Your task to perform on an android device: change the upload size in google photos Image 0: 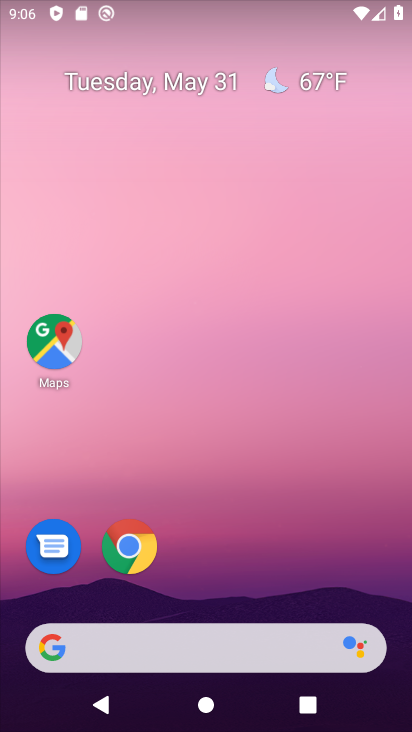
Step 0: drag from (213, 604) to (263, 101)
Your task to perform on an android device: change the upload size in google photos Image 1: 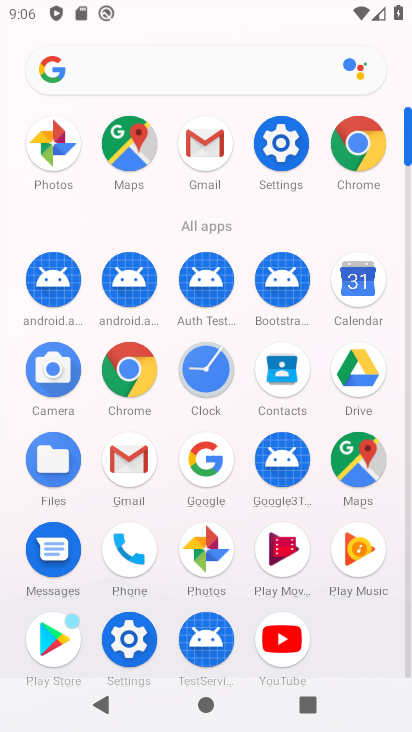
Step 1: click (204, 563)
Your task to perform on an android device: change the upload size in google photos Image 2: 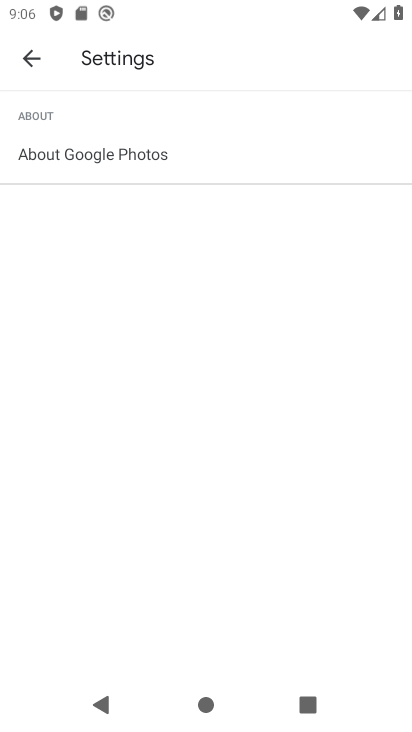
Step 2: click (23, 47)
Your task to perform on an android device: change the upload size in google photos Image 3: 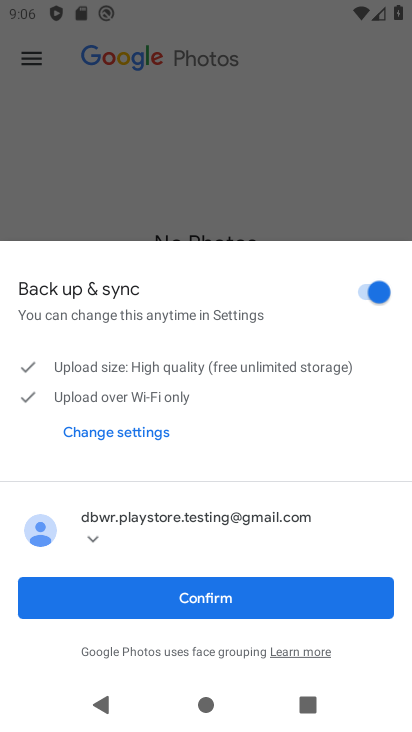
Step 3: click (190, 597)
Your task to perform on an android device: change the upload size in google photos Image 4: 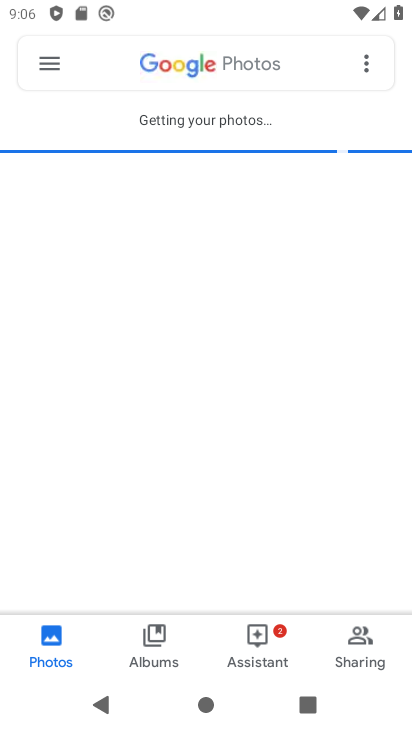
Step 4: click (44, 64)
Your task to perform on an android device: change the upload size in google photos Image 5: 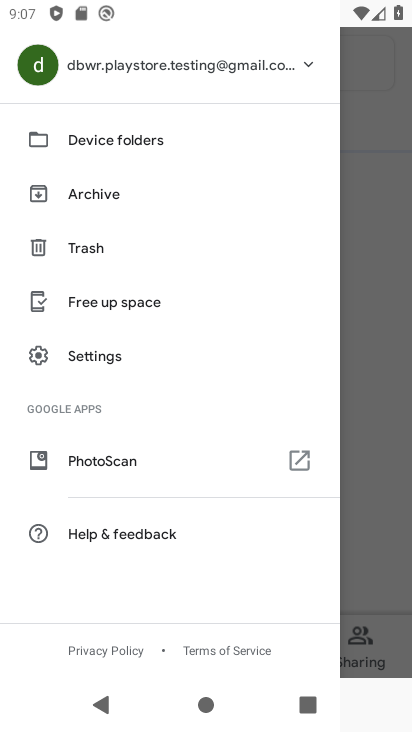
Step 5: click (112, 357)
Your task to perform on an android device: change the upload size in google photos Image 6: 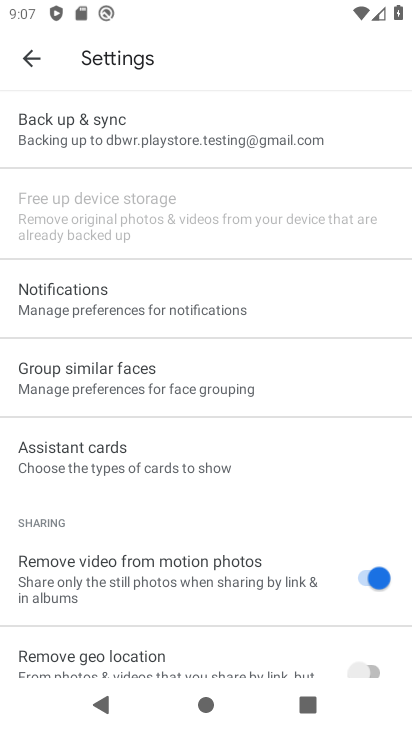
Step 6: click (161, 134)
Your task to perform on an android device: change the upload size in google photos Image 7: 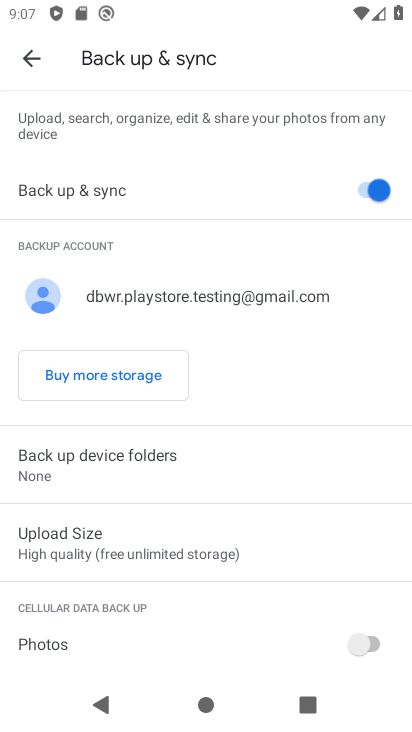
Step 7: click (142, 536)
Your task to perform on an android device: change the upload size in google photos Image 8: 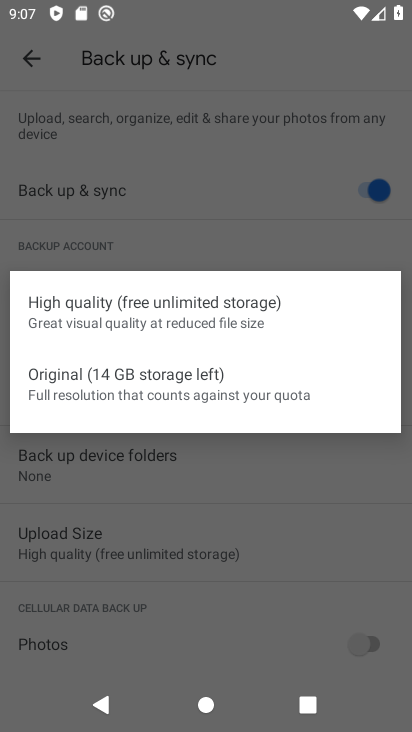
Step 8: click (117, 390)
Your task to perform on an android device: change the upload size in google photos Image 9: 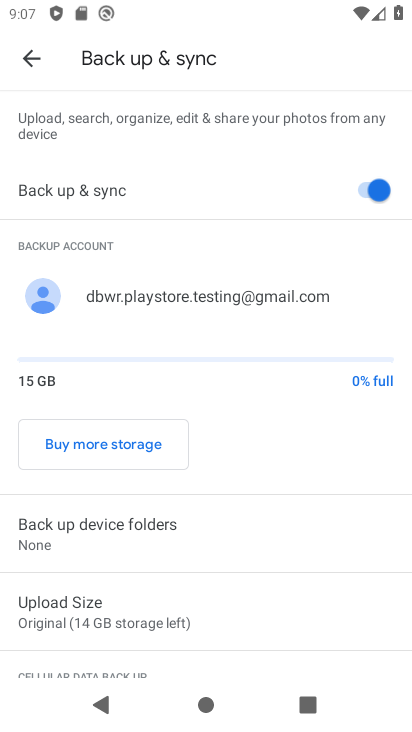
Step 9: task complete